Your task to perform on an android device: Search for Italian restaurants on Maps Image 0: 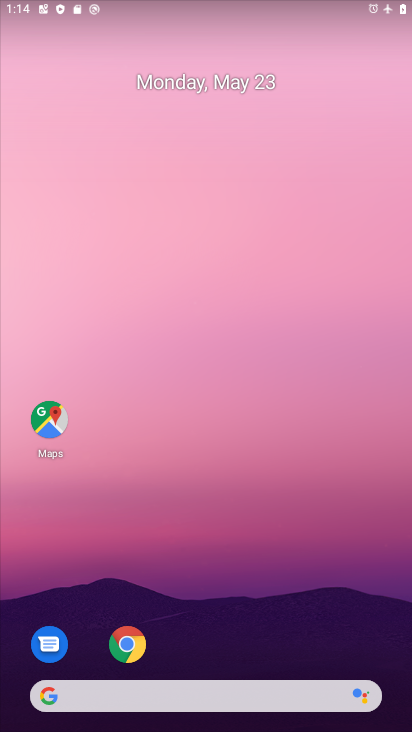
Step 0: drag from (308, 638) to (302, 19)
Your task to perform on an android device: Search for Italian restaurants on Maps Image 1: 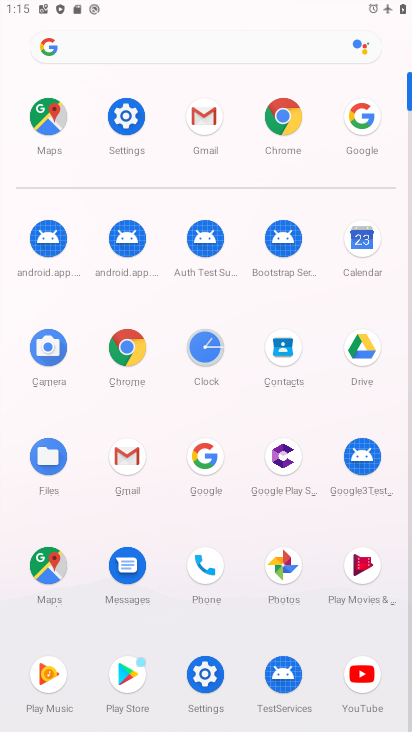
Step 1: click (56, 579)
Your task to perform on an android device: Search for Italian restaurants on Maps Image 2: 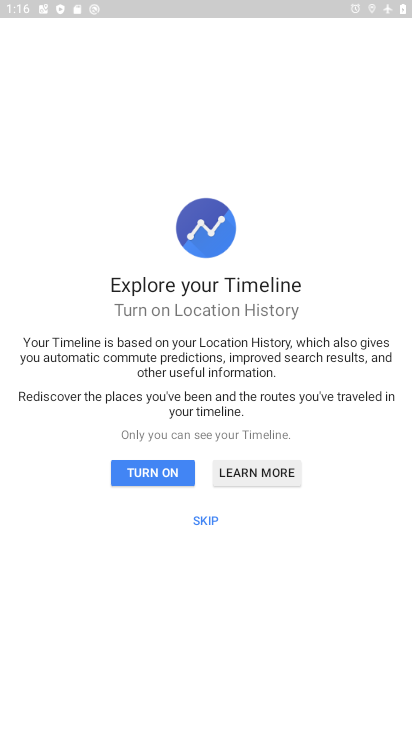
Step 2: press back button
Your task to perform on an android device: Search for Italian restaurants on Maps Image 3: 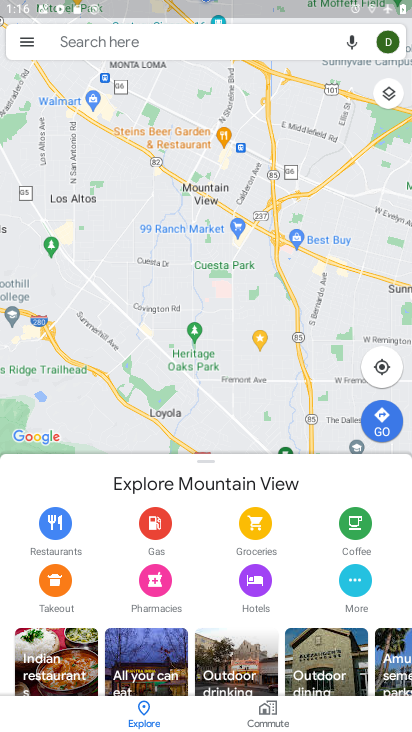
Step 3: click (146, 39)
Your task to perform on an android device: Search for Italian restaurants on Maps Image 4: 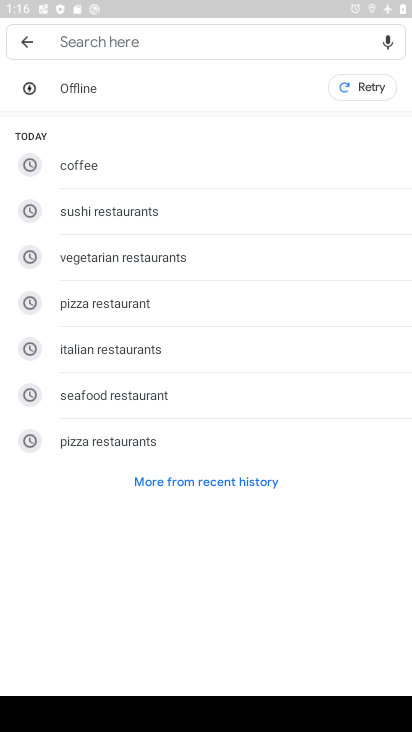
Step 4: click (182, 351)
Your task to perform on an android device: Search for Italian restaurants on Maps Image 5: 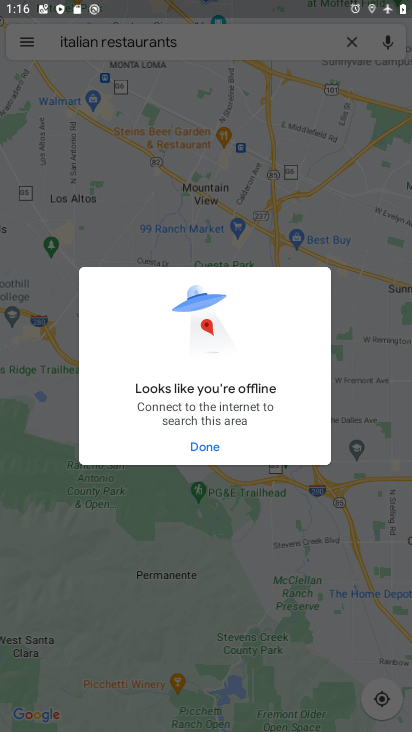
Step 5: task complete